Your task to perform on an android device: Open Android settings Image 0: 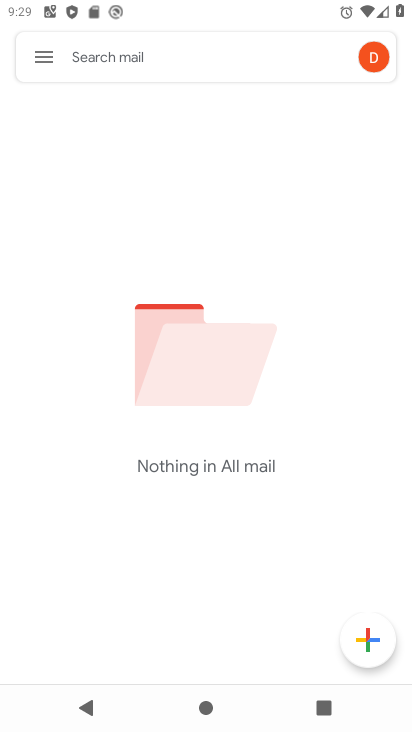
Step 0: press home button
Your task to perform on an android device: Open Android settings Image 1: 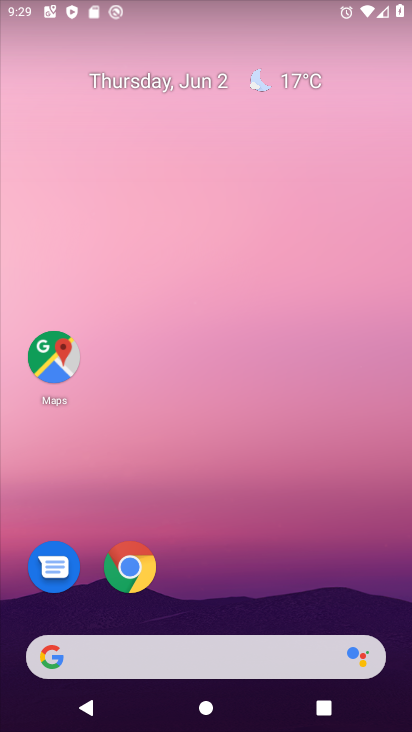
Step 1: drag from (219, 584) to (242, 207)
Your task to perform on an android device: Open Android settings Image 2: 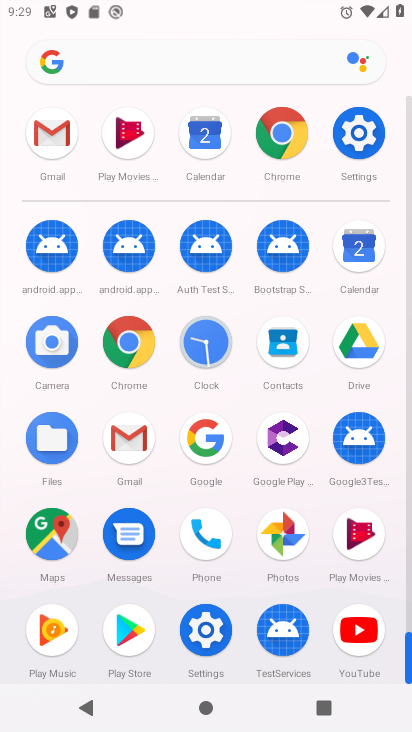
Step 2: click (209, 627)
Your task to perform on an android device: Open Android settings Image 3: 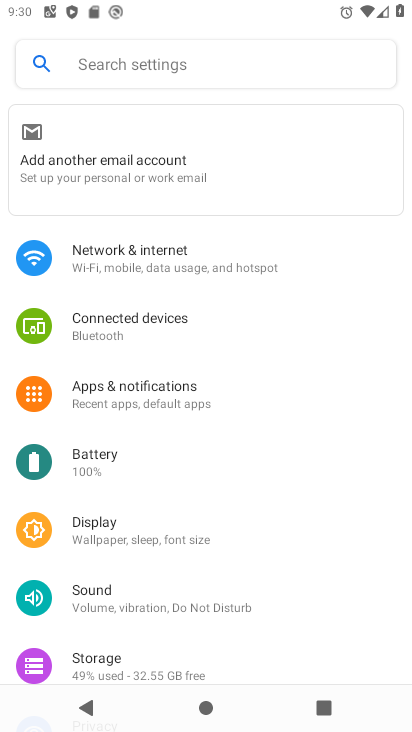
Step 3: drag from (153, 589) to (194, 216)
Your task to perform on an android device: Open Android settings Image 4: 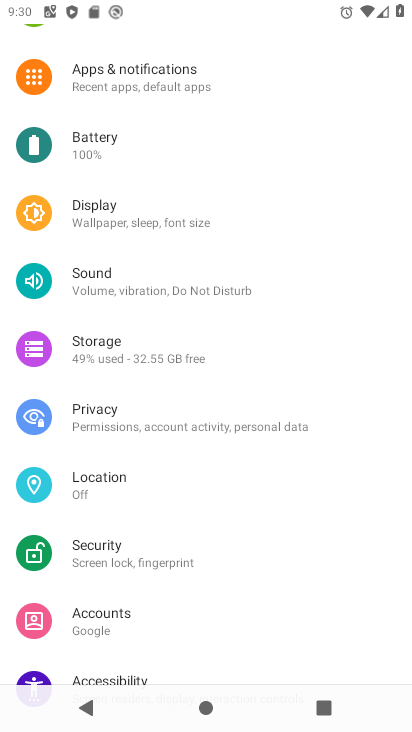
Step 4: drag from (128, 584) to (196, 176)
Your task to perform on an android device: Open Android settings Image 5: 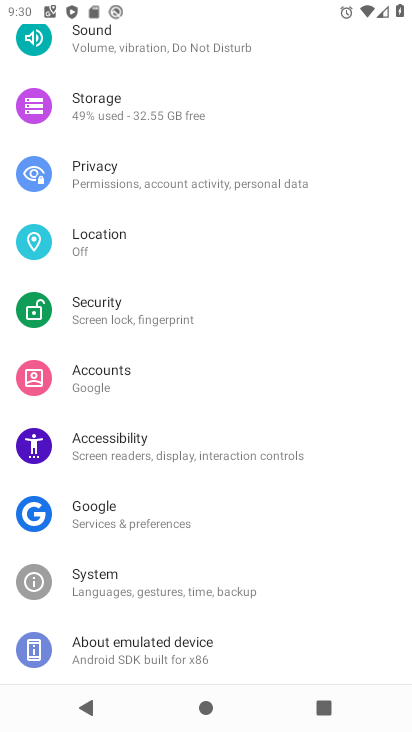
Step 5: click (132, 652)
Your task to perform on an android device: Open Android settings Image 6: 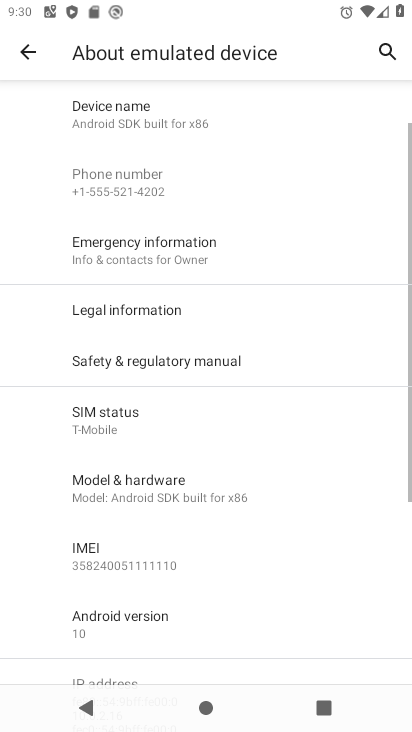
Step 6: click (154, 639)
Your task to perform on an android device: Open Android settings Image 7: 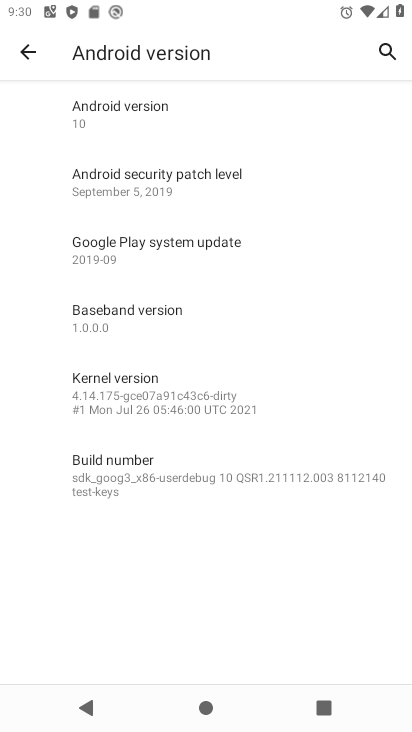
Step 7: task complete